Your task to perform on an android device: Open calendar and show me the first week of next month Image 0: 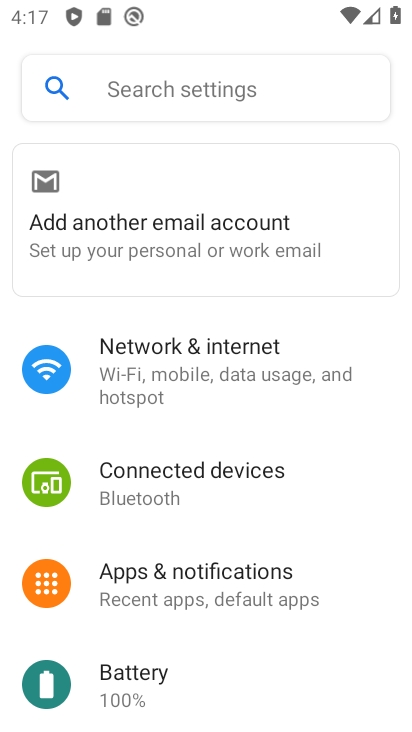
Step 0: press back button
Your task to perform on an android device: Open calendar and show me the first week of next month Image 1: 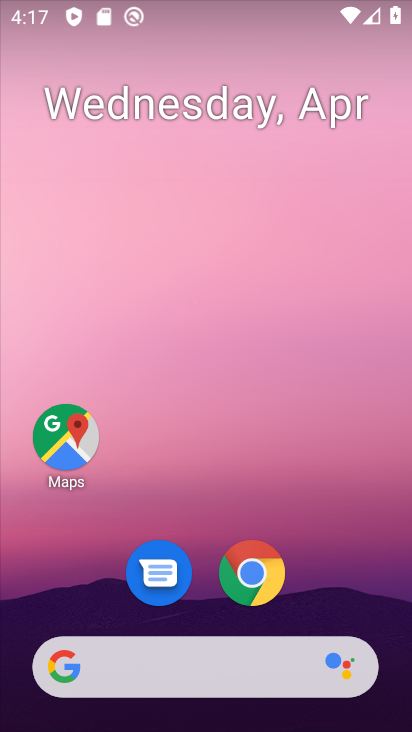
Step 1: drag from (69, 614) to (288, 40)
Your task to perform on an android device: Open calendar and show me the first week of next month Image 2: 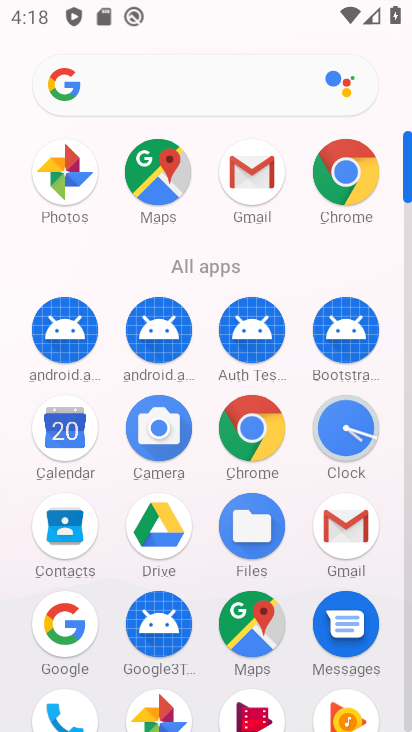
Step 2: click (80, 446)
Your task to perform on an android device: Open calendar and show me the first week of next month Image 3: 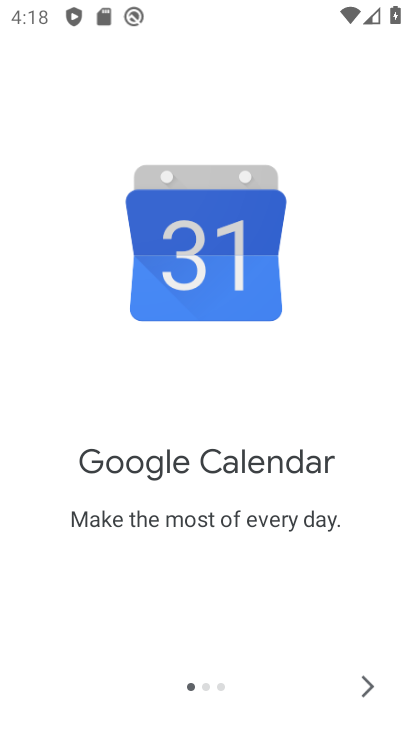
Step 3: click (364, 686)
Your task to perform on an android device: Open calendar and show me the first week of next month Image 4: 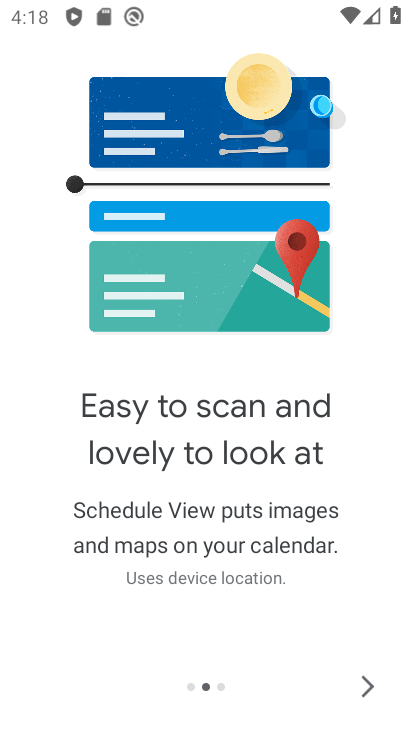
Step 4: click (368, 684)
Your task to perform on an android device: Open calendar and show me the first week of next month Image 5: 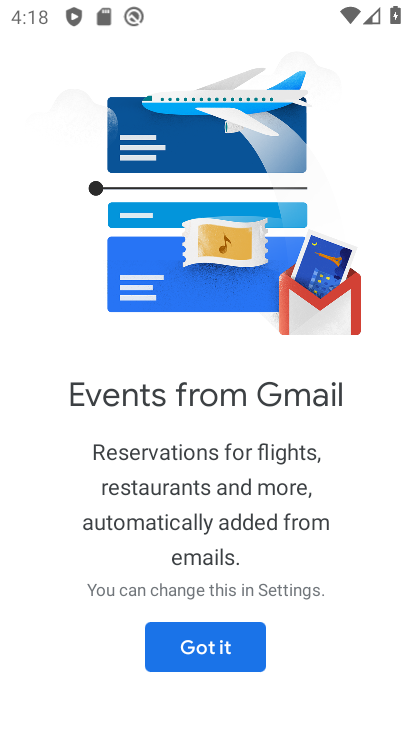
Step 5: click (219, 656)
Your task to perform on an android device: Open calendar and show me the first week of next month Image 6: 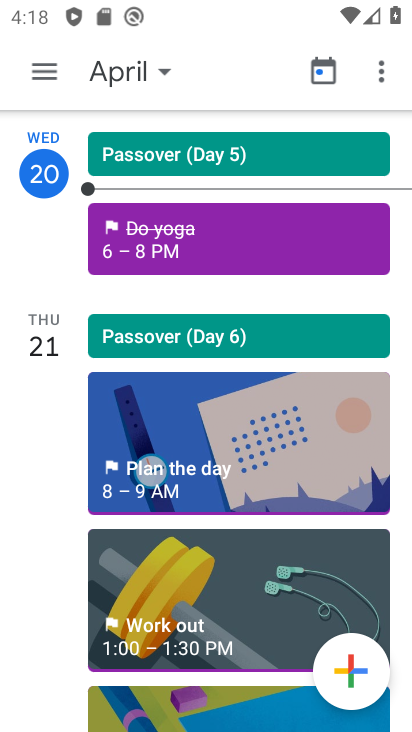
Step 6: click (126, 77)
Your task to perform on an android device: Open calendar and show me the first week of next month Image 7: 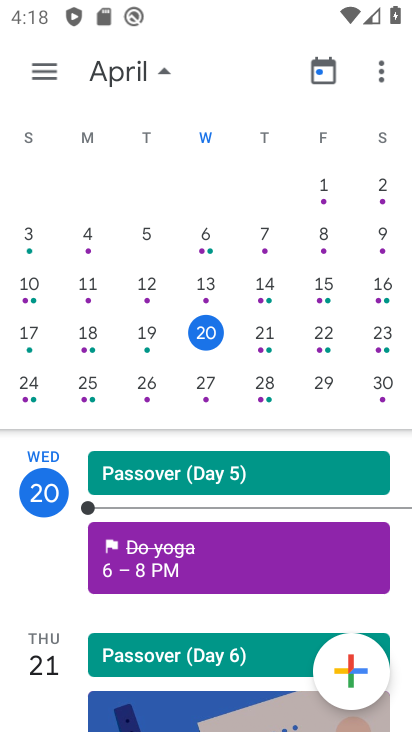
Step 7: drag from (362, 261) to (10, 202)
Your task to perform on an android device: Open calendar and show me the first week of next month Image 8: 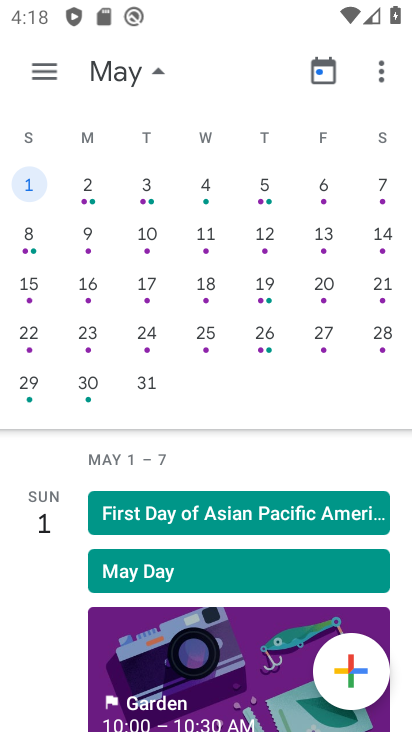
Step 8: click (33, 189)
Your task to perform on an android device: Open calendar and show me the first week of next month Image 9: 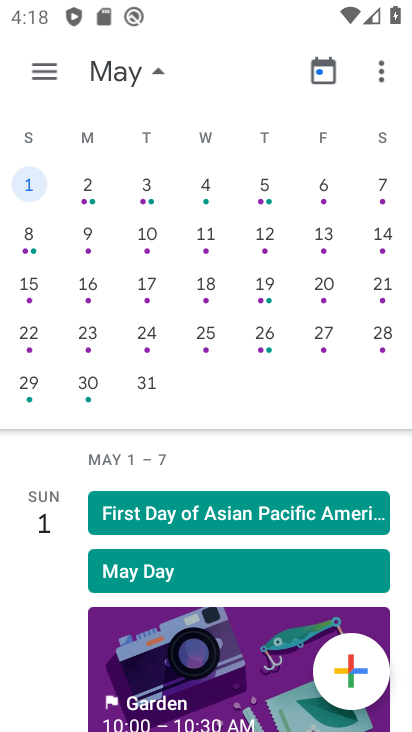
Step 9: click (41, 75)
Your task to perform on an android device: Open calendar and show me the first week of next month Image 10: 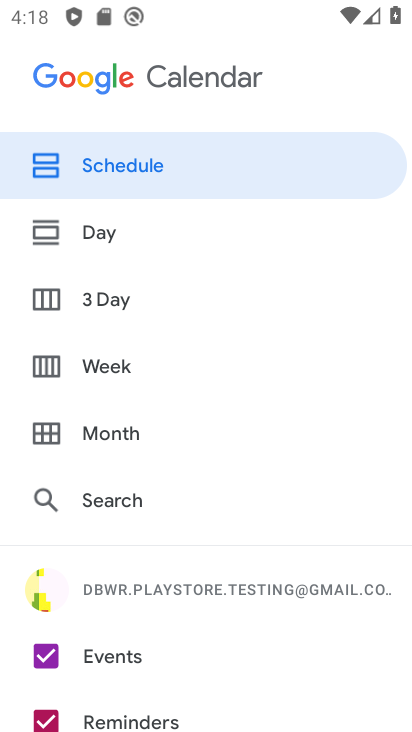
Step 10: click (112, 379)
Your task to perform on an android device: Open calendar and show me the first week of next month Image 11: 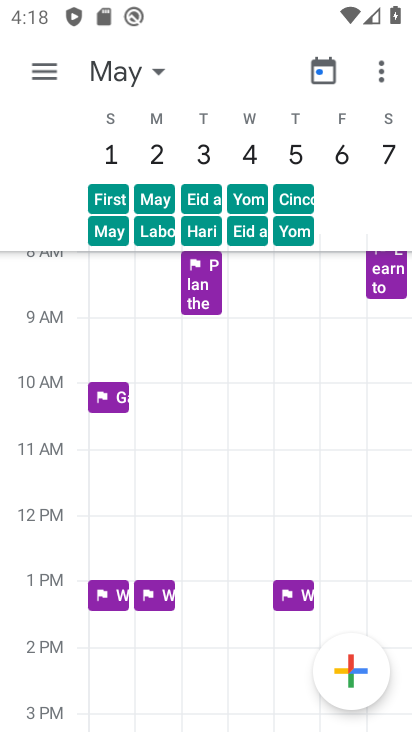
Step 11: task complete